Your task to perform on an android device: What is the news today? Image 0: 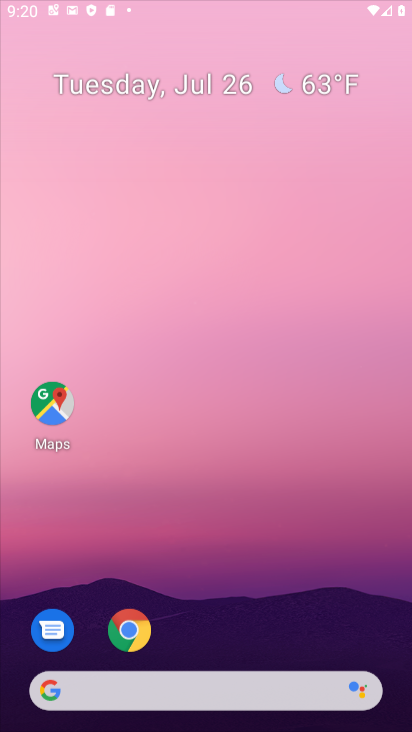
Step 0: press home button
Your task to perform on an android device: What is the news today? Image 1: 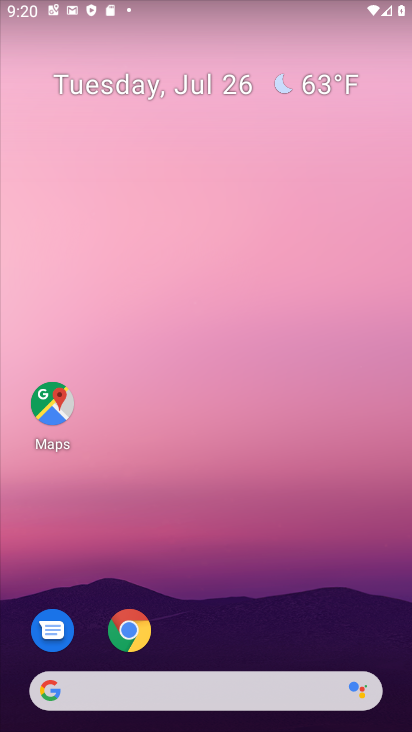
Step 1: task complete